Your task to perform on an android device: Open Google Image 0: 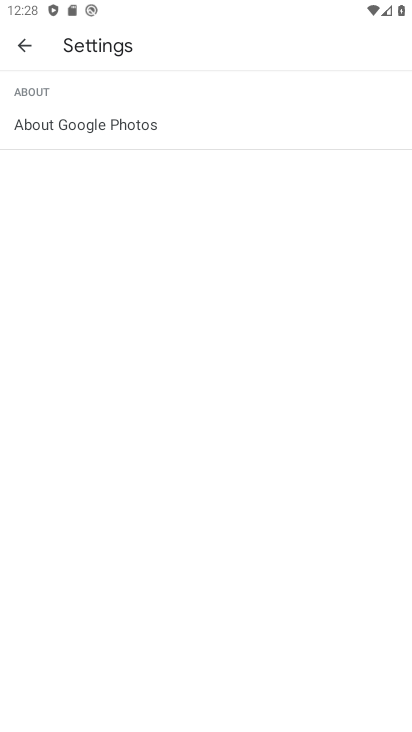
Step 0: press back button
Your task to perform on an android device: Open Google Image 1: 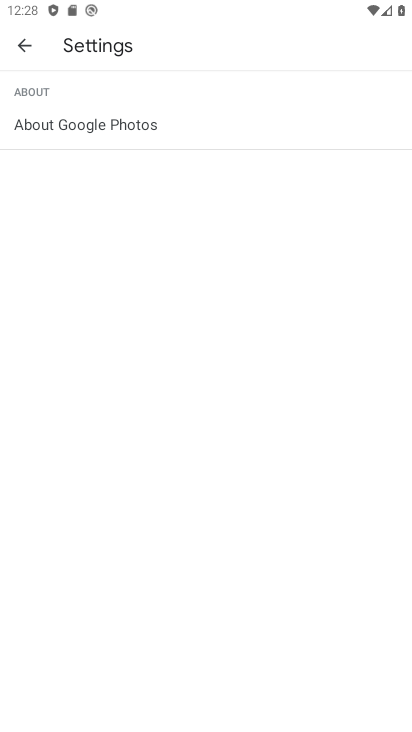
Step 1: press home button
Your task to perform on an android device: Open Google Image 2: 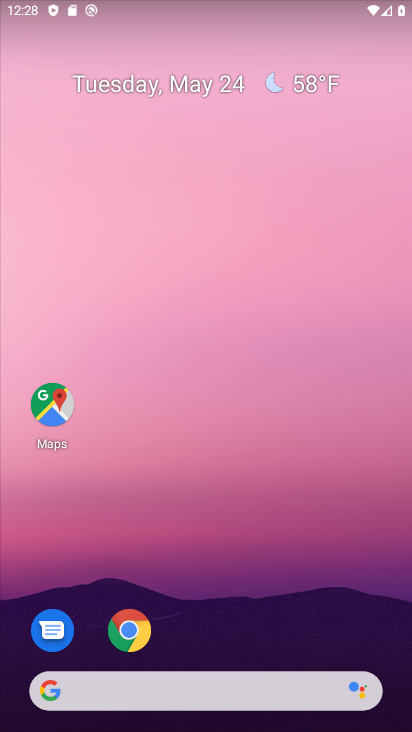
Step 2: drag from (252, 596) to (213, 276)
Your task to perform on an android device: Open Google Image 3: 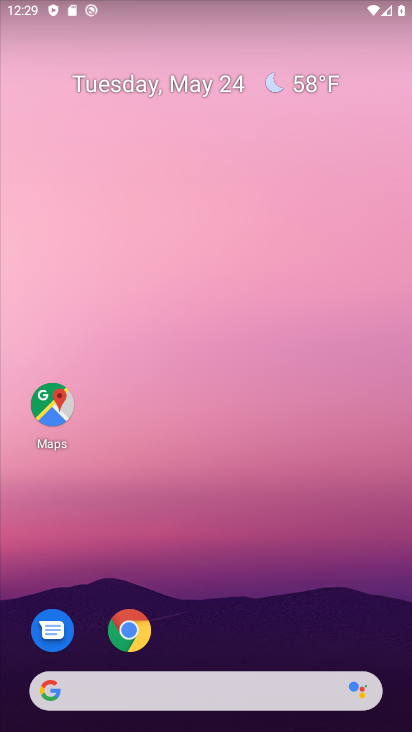
Step 3: drag from (250, 585) to (167, 106)
Your task to perform on an android device: Open Google Image 4: 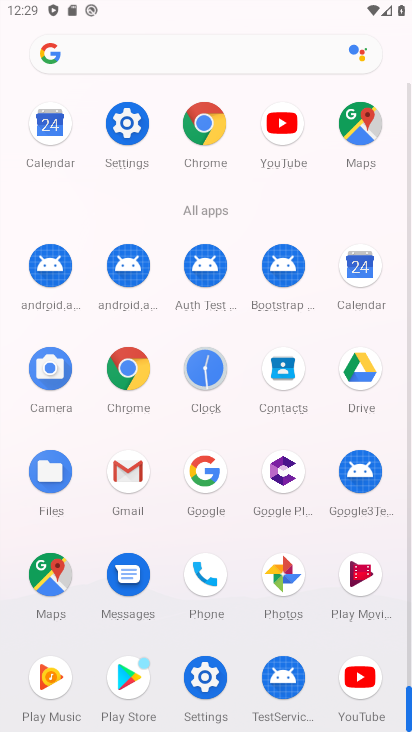
Step 4: click (203, 472)
Your task to perform on an android device: Open Google Image 5: 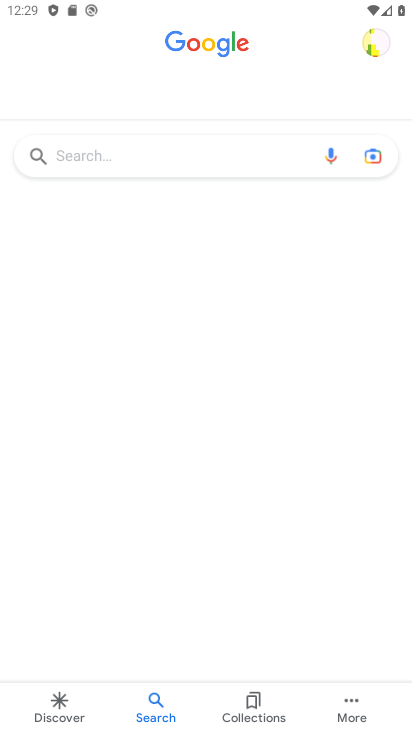
Step 5: task complete